Your task to perform on an android device: open app "Google Duo" (install if not already installed) Image 0: 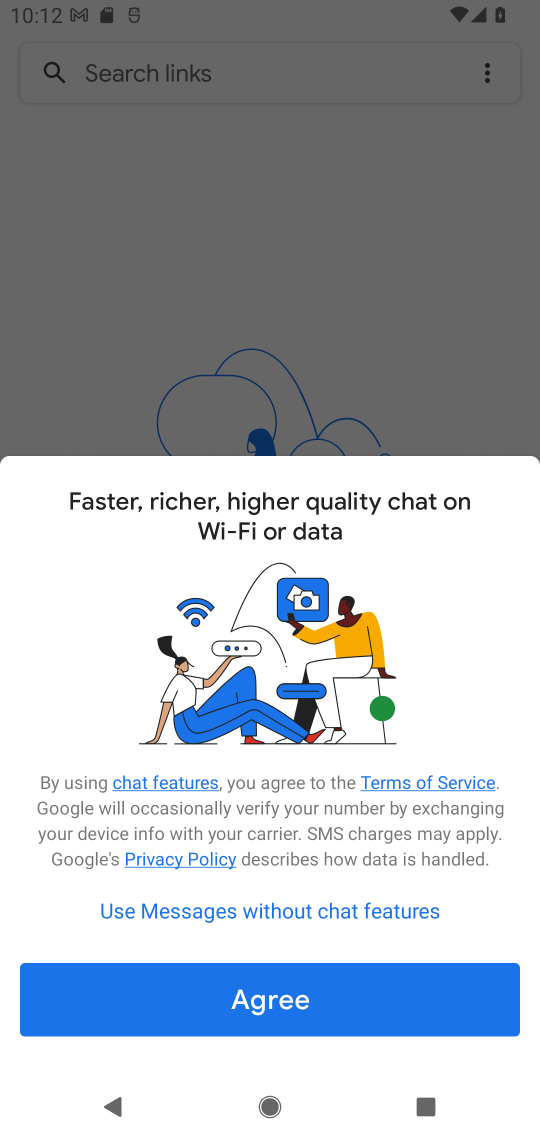
Step 0: press home button
Your task to perform on an android device: open app "Google Duo" (install if not already installed) Image 1: 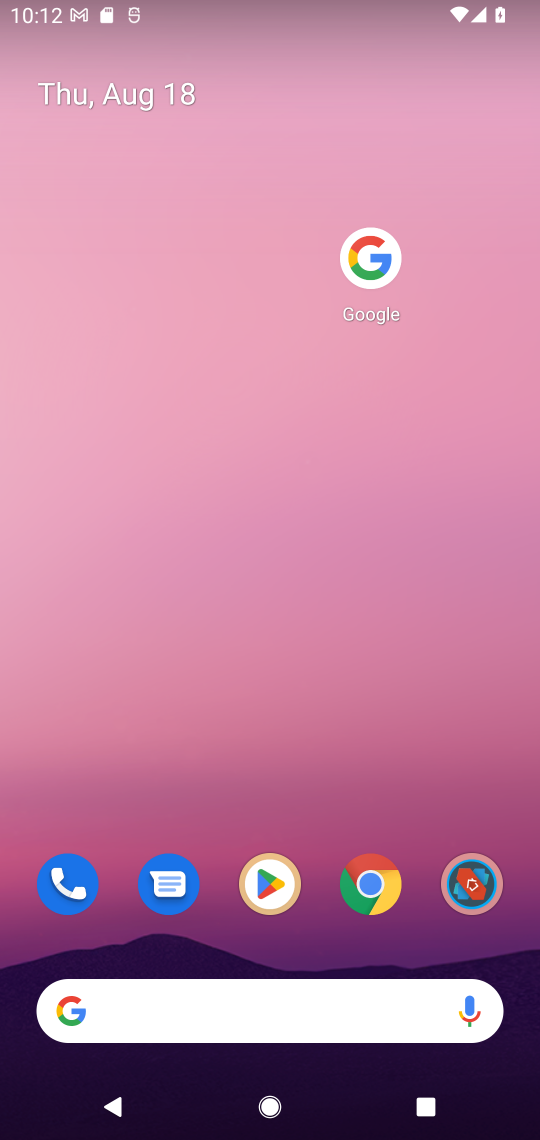
Step 1: click (283, 862)
Your task to perform on an android device: open app "Google Duo" (install if not already installed) Image 2: 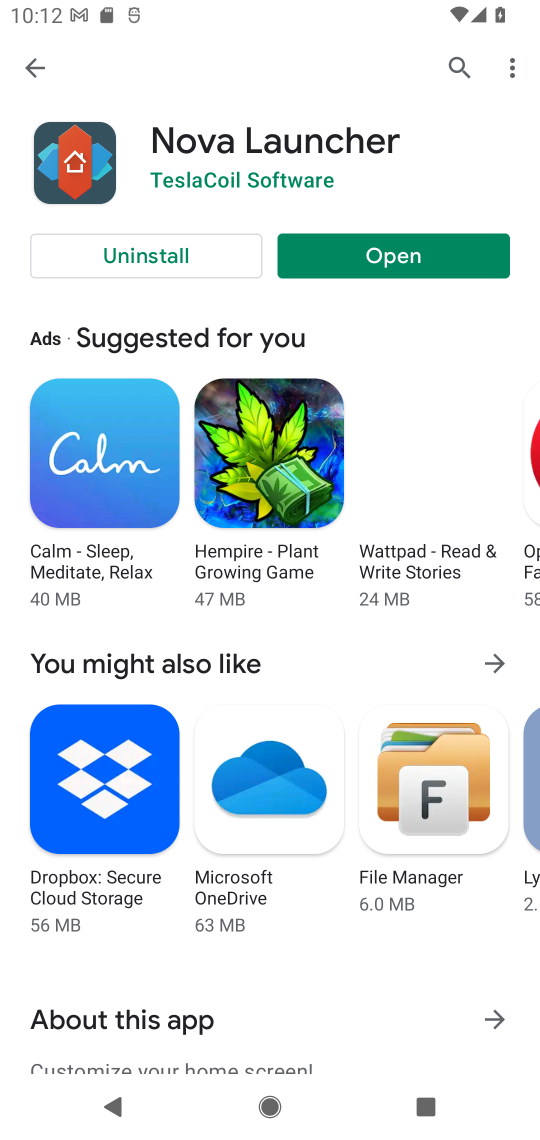
Step 2: click (445, 72)
Your task to perform on an android device: open app "Google Duo" (install if not already installed) Image 3: 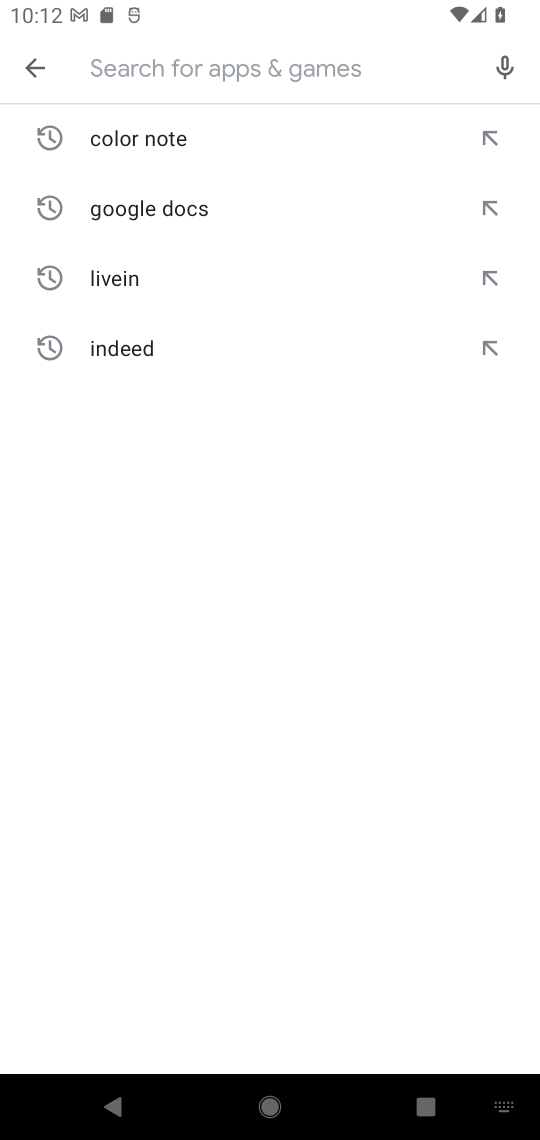
Step 3: type "googleduo"
Your task to perform on an android device: open app "Google Duo" (install if not already installed) Image 4: 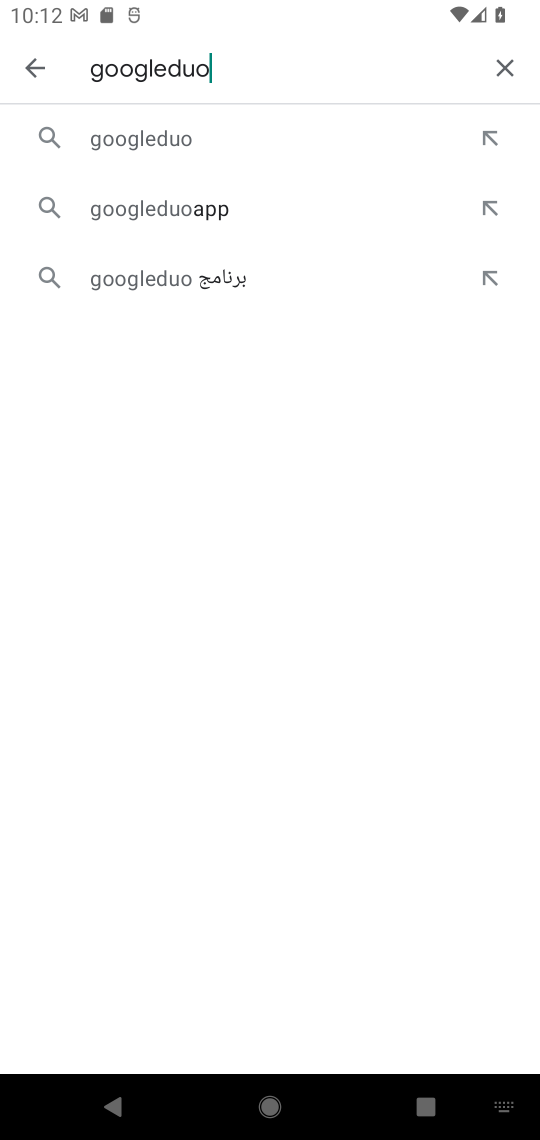
Step 4: click (202, 116)
Your task to perform on an android device: open app "Google Duo" (install if not already installed) Image 5: 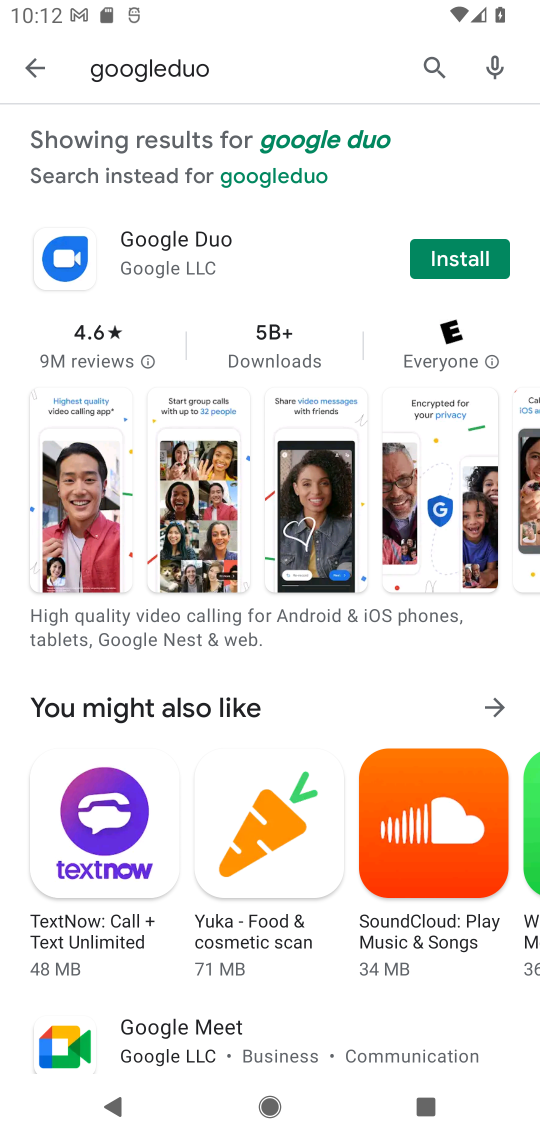
Step 5: click (453, 264)
Your task to perform on an android device: open app "Google Duo" (install if not already installed) Image 6: 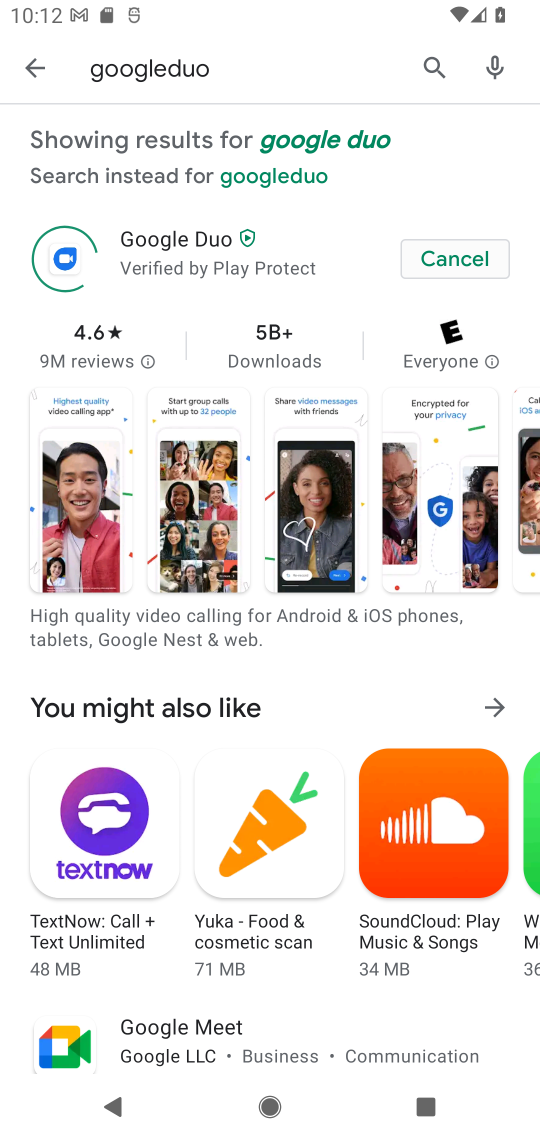
Step 6: task complete